Your task to perform on an android device: Open the web browser Image 0: 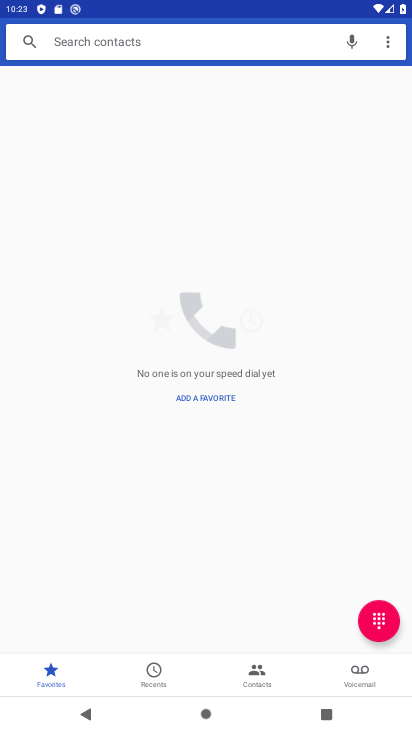
Step 0: press home button
Your task to perform on an android device: Open the web browser Image 1: 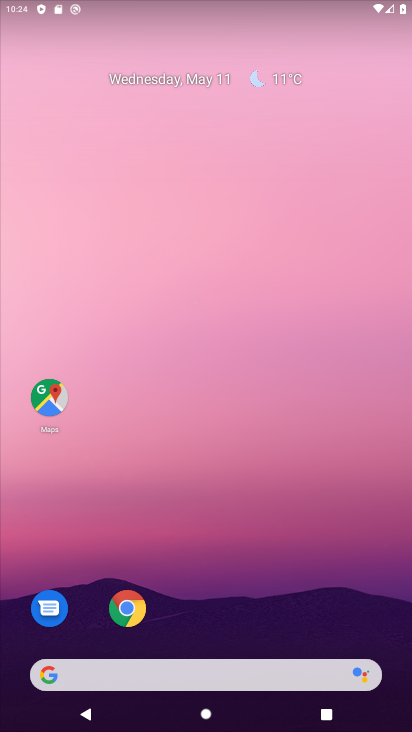
Step 1: click (128, 605)
Your task to perform on an android device: Open the web browser Image 2: 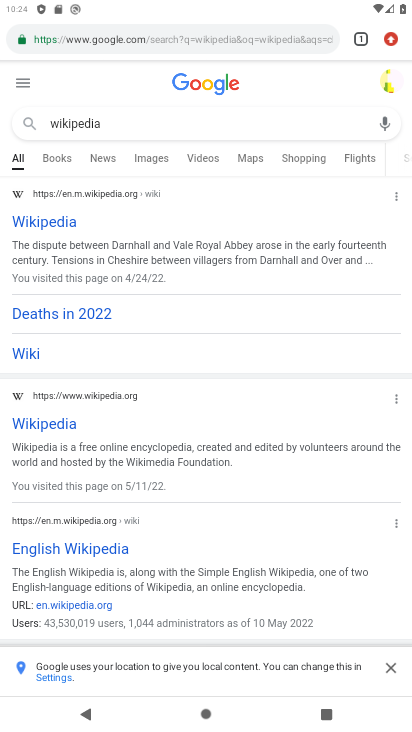
Step 2: click (159, 41)
Your task to perform on an android device: Open the web browser Image 3: 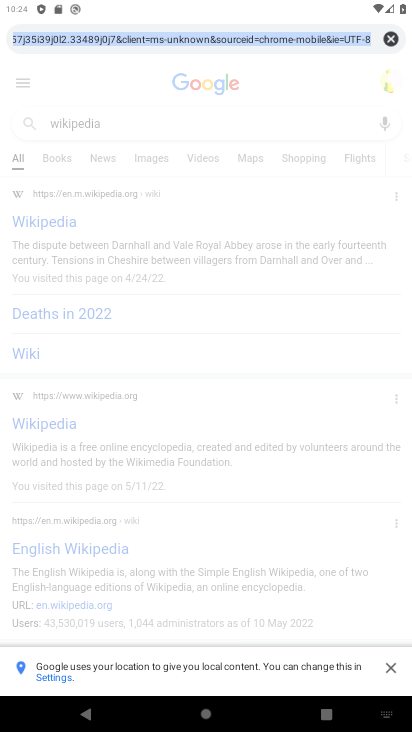
Step 3: task complete